Your task to perform on an android device: Open the calendar app, open the side menu, and click the "Day" option Image 0: 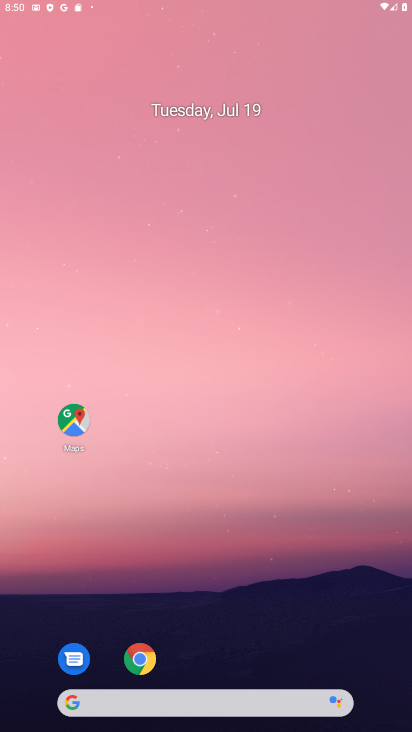
Step 0: drag from (220, 668) to (164, 8)
Your task to perform on an android device: Open the calendar app, open the side menu, and click the "Day" option Image 1: 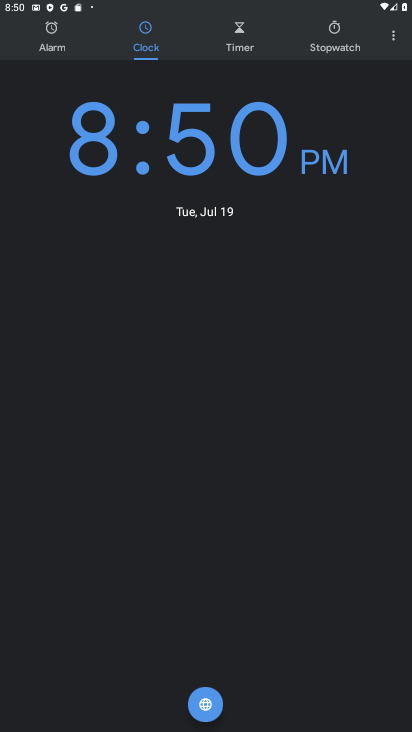
Step 1: press home button
Your task to perform on an android device: Open the calendar app, open the side menu, and click the "Day" option Image 2: 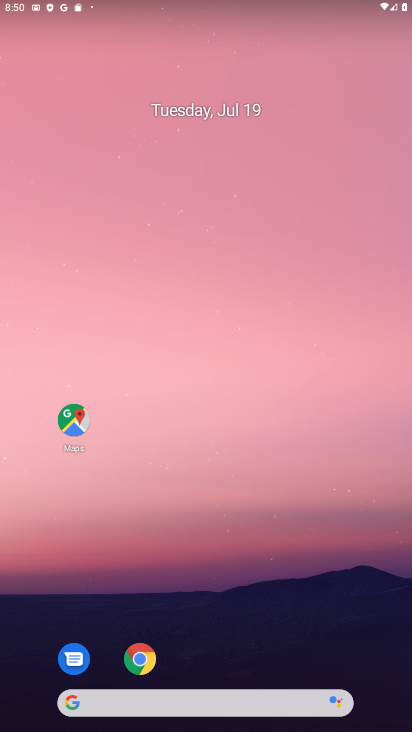
Step 2: drag from (315, 640) to (267, 75)
Your task to perform on an android device: Open the calendar app, open the side menu, and click the "Day" option Image 3: 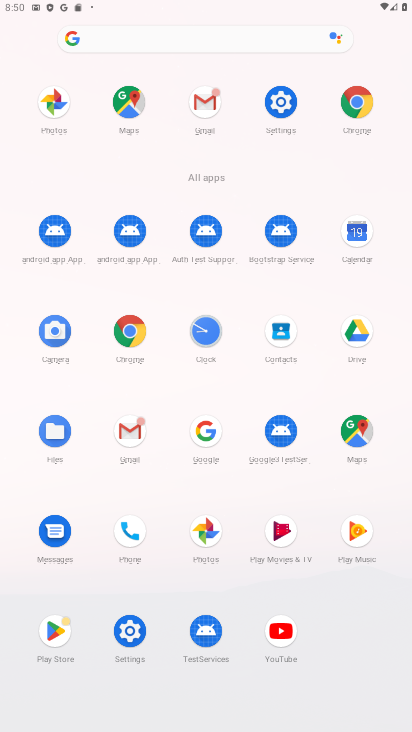
Step 3: click (364, 236)
Your task to perform on an android device: Open the calendar app, open the side menu, and click the "Day" option Image 4: 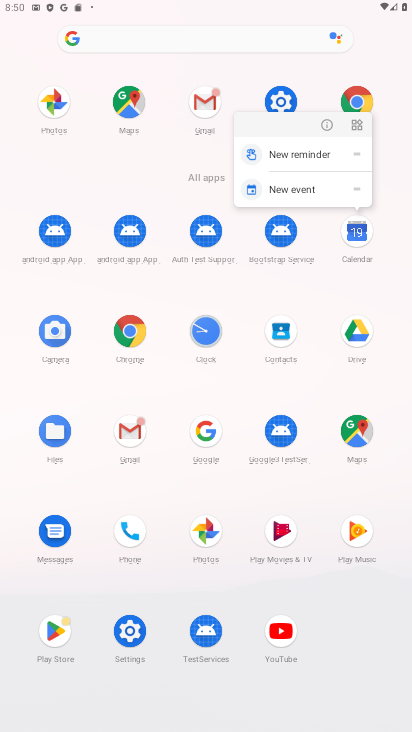
Step 4: click (353, 227)
Your task to perform on an android device: Open the calendar app, open the side menu, and click the "Day" option Image 5: 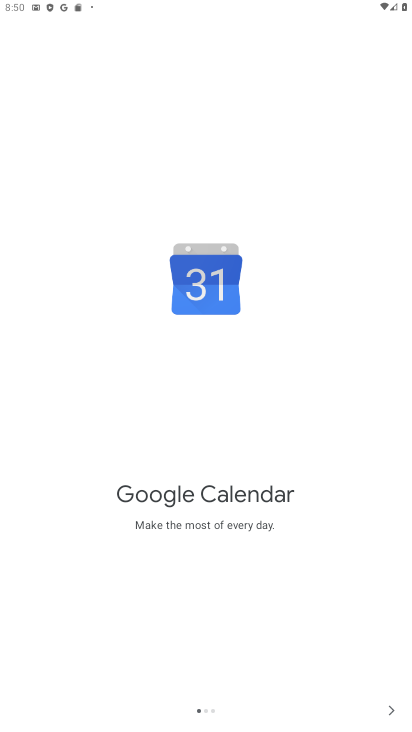
Step 5: click (390, 705)
Your task to perform on an android device: Open the calendar app, open the side menu, and click the "Day" option Image 6: 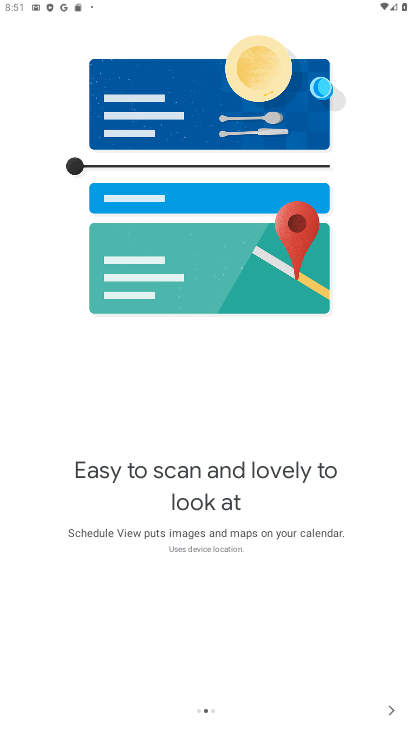
Step 6: click (384, 694)
Your task to perform on an android device: Open the calendar app, open the side menu, and click the "Day" option Image 7: 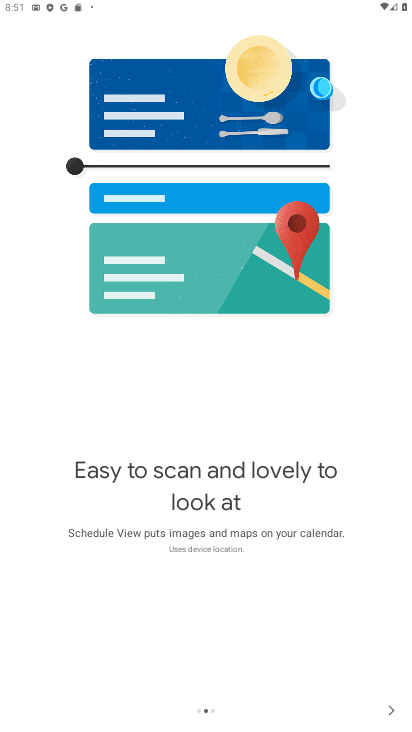
Step 7: click (387, 706)
Your task to perform on an android device: Open the calendar app, open the side menu, and click the "Day" option Image 8: 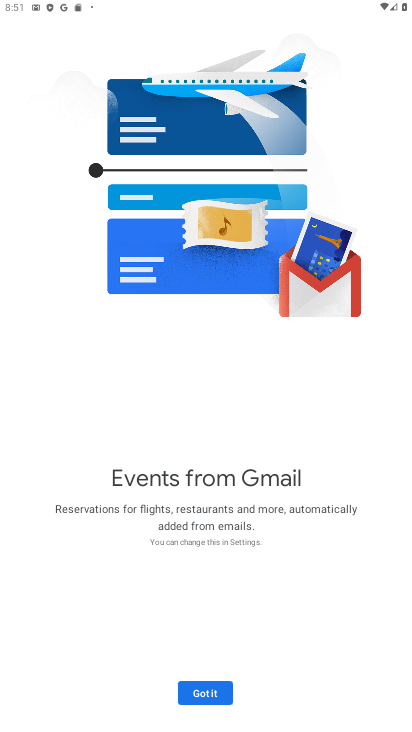
Step 8: click (387, 706)
Your task to perform on an android device: Open the calendar app, open the side menu, and click the "Day" option Image 9: 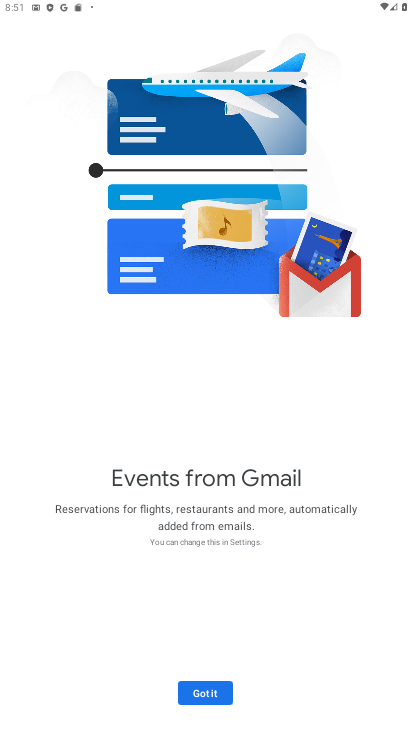
Step 9: click (209, 687)
Your task to perform on an android device: Open the calendar app, open the side menu, and click the "Day" option Image 10: 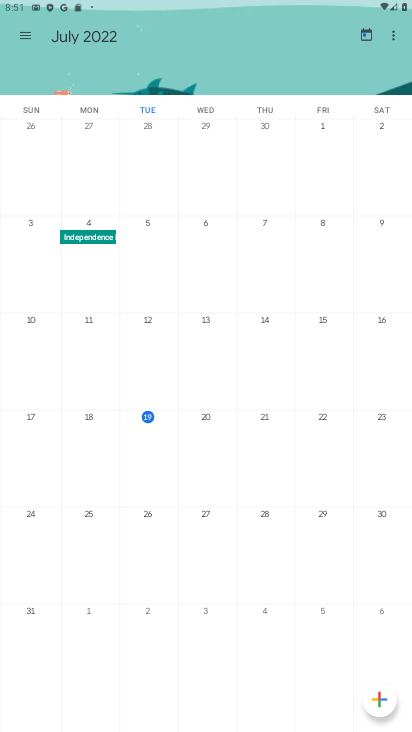
Step 10: click (26, 44)
Your task to perform on an android device: Open the calendar app, open the side menu, and click the "Day" option Image 11: 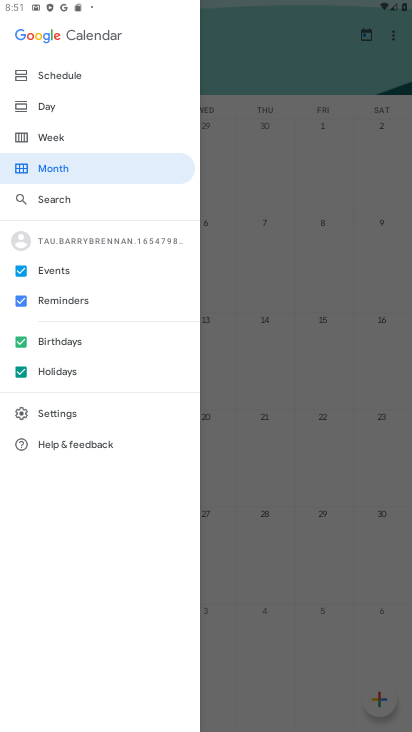
Step 11: click (37, 107)
Your task to perform on an android device: Open the calendar app, open the side menu, and click the "Day" option Image 12: 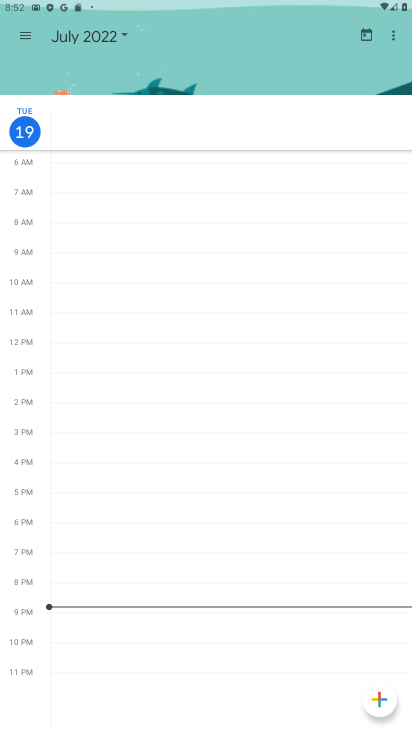
Step 12: task complete